Your task to perform on an android device: Open my contact list Image 0: 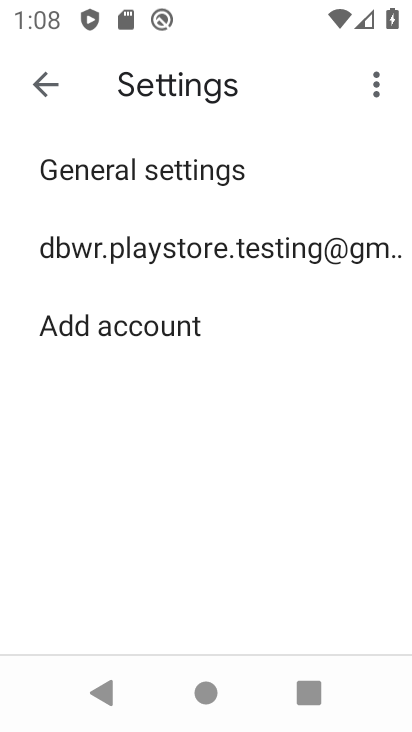
Step 0: press home button
Your task to perform on an android device: Open my contact list Image 1: 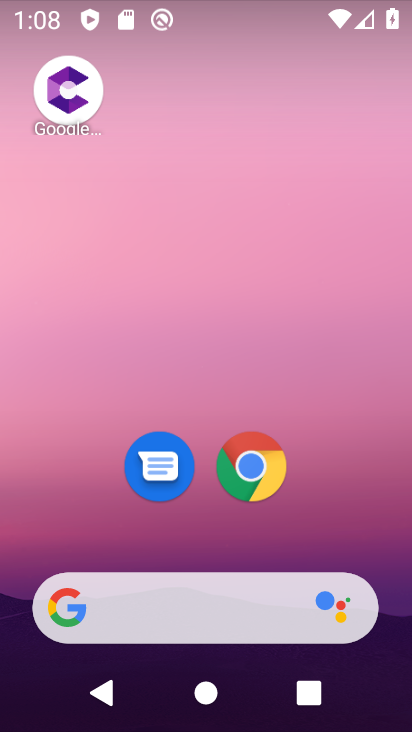
Step 1: drag from (96, 572) to (187, 119)
Your task to perform on an android device: Open my contact list Image 2: 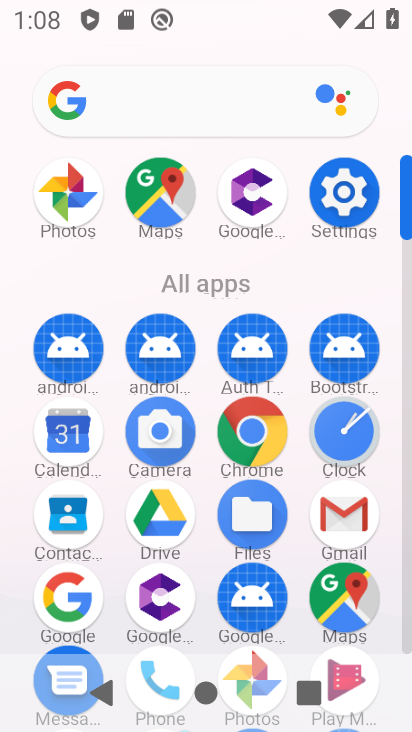
Step 2: click (87, 532)
Your task to perform on an android device: Open my contact list Image 3: 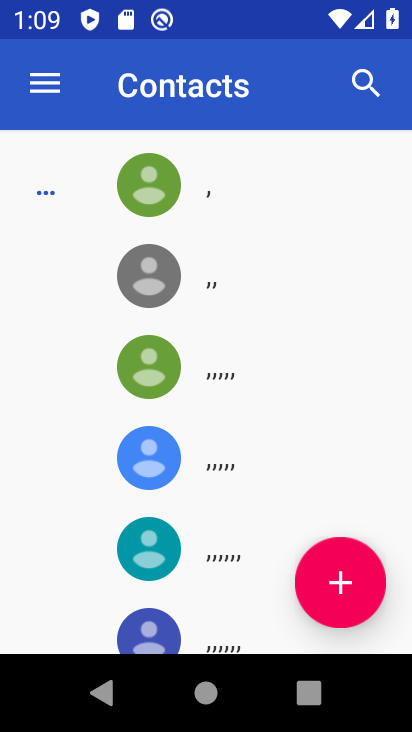
Step 3: task complete